Your task to perform on an android device: uninstall "ZOOM Cloud Meetings" Image 0: 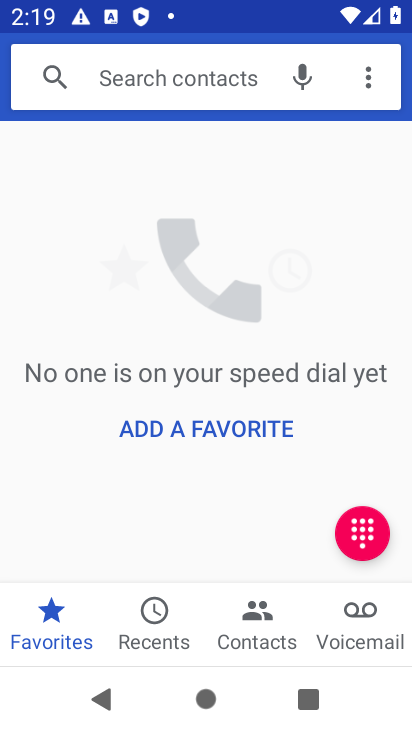
Step 0: press home button
Your task to perform on an android device: uninstall "ZOOM Cloud Meetings" Image 1: 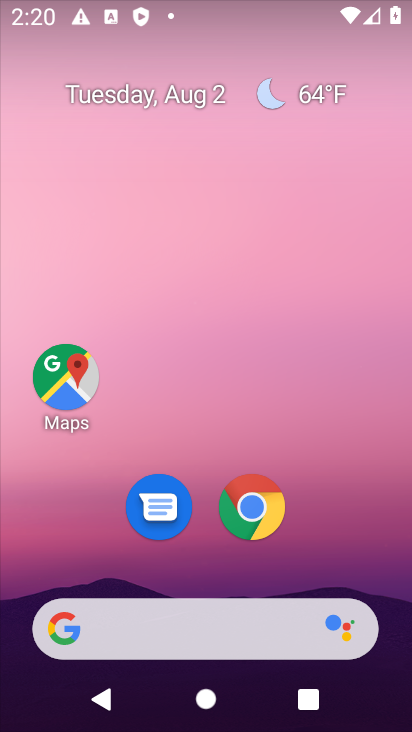
Step 1: drag from (174, 437) to (163, 26)
Your task to perform on an android device: uninstall "ZOOM Cloud Meetings" Image 2: 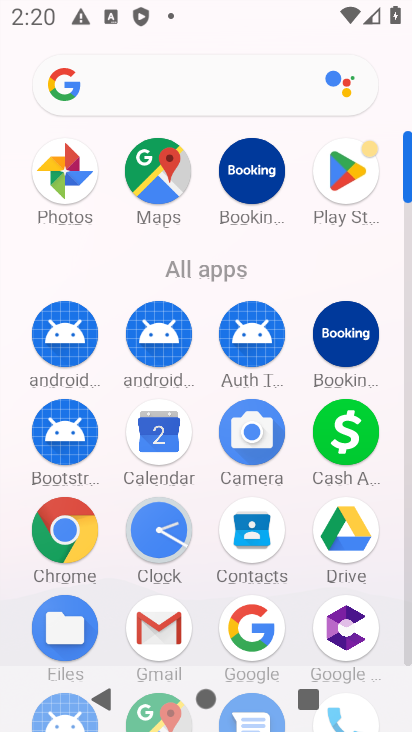
Step 2: click (359, 196)
Your task to perform on an android device: uninstall "ZOOM Cloud Meetings" Image 3: 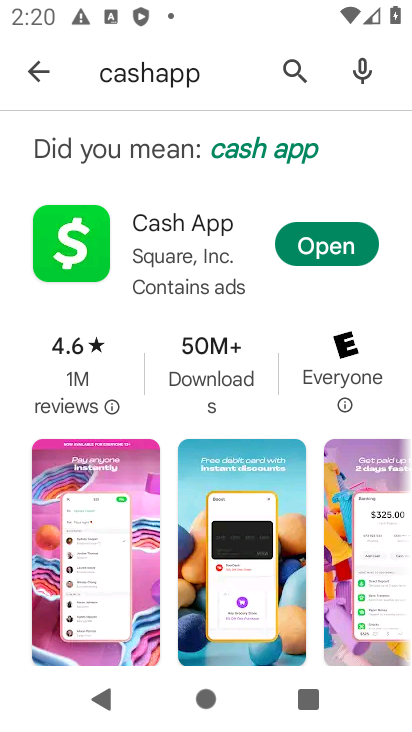
Step 3: click (171, 61)
Your task to perform on an android device: uninstall "ZOOM Cloud Meetings" Image 4: 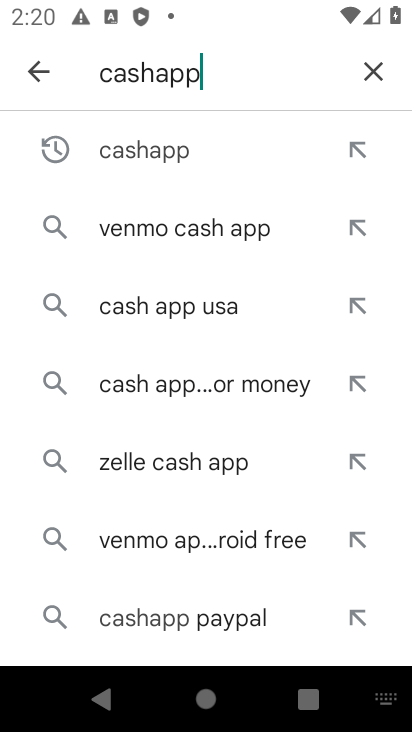
Step 4: click (377, 69)
Your task to perform on an android device: uninstall "ZOOM Cloud Meetings" Image 5: 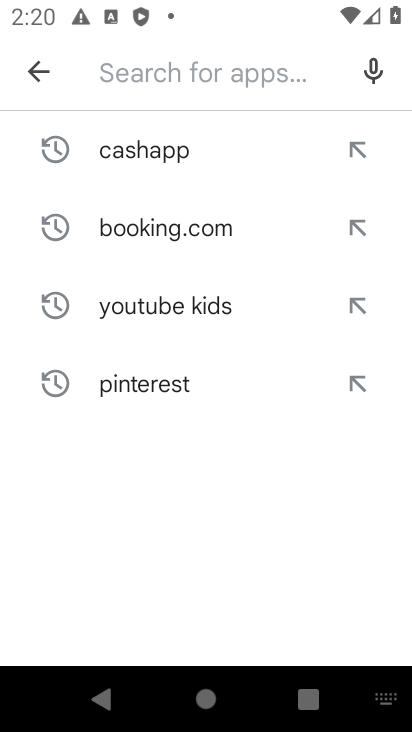
Step 5: type "zoom cloud"
Your task to perform on an android device: uninstall "ZOOM Cloud Meetings" Image 6: 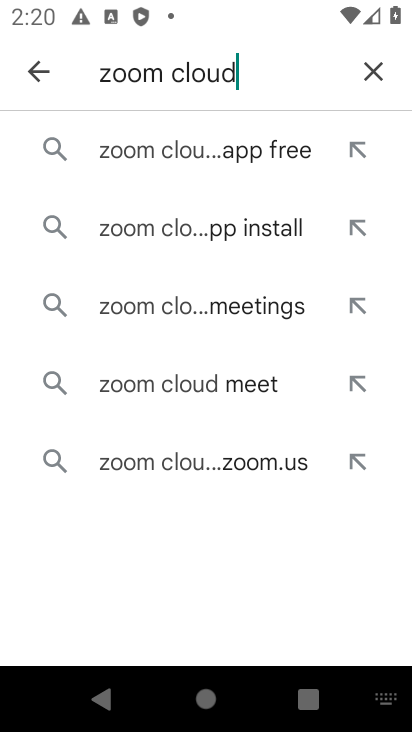
Step 6: click (111, 149)
Your task to perform on an android device: uninstall "ZOOM Cloud Meetings" Image 7: 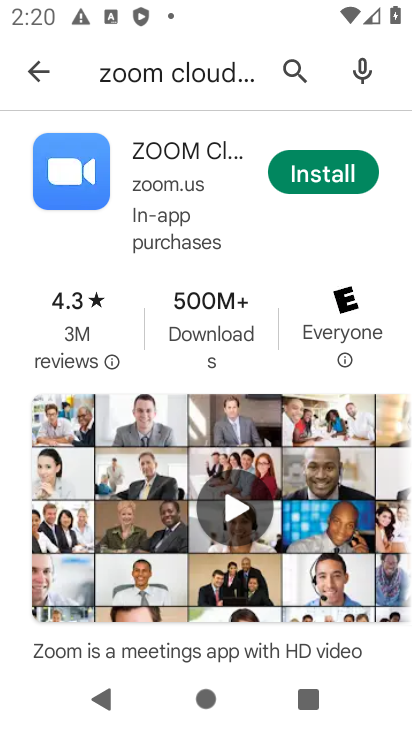
Step 7: task complete